Your task to perform on an android device: Go to Maps Image 0: 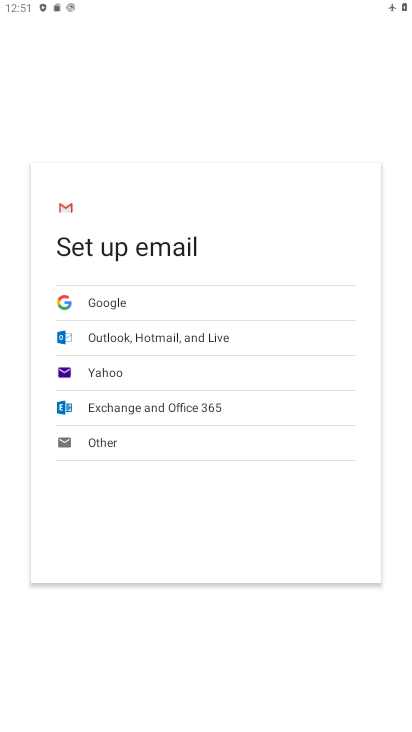
Step 0: press home button
Your task to perform on an android device: Go to Maps Image 1: 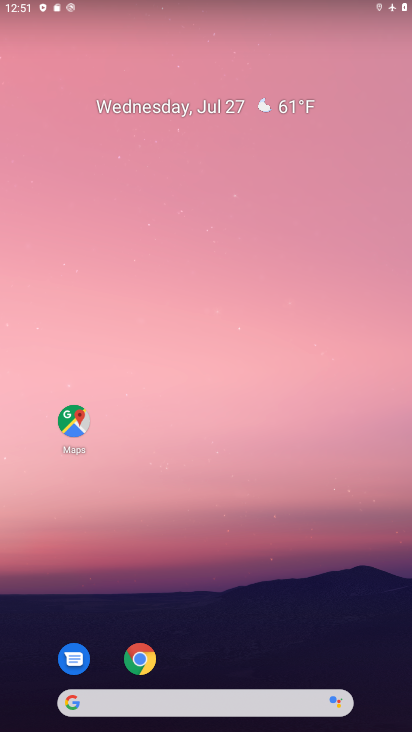
Step 1: click (74, 409)
Your task to perform on an android device: Go to Maps Image 2: 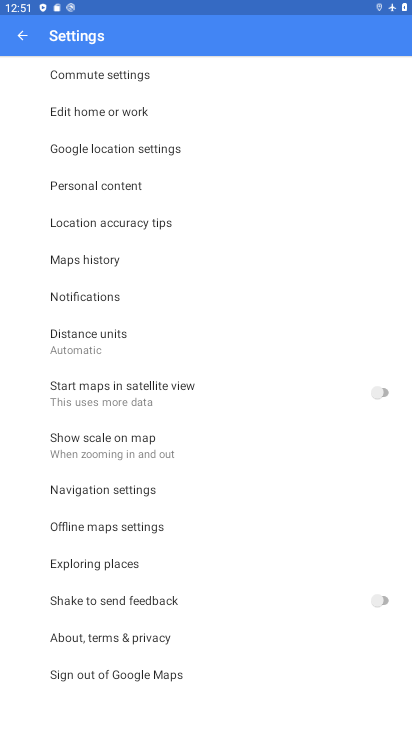
Step 2: click (31, 31)
Your task to perform on an android device: Go to Maps Image 3: 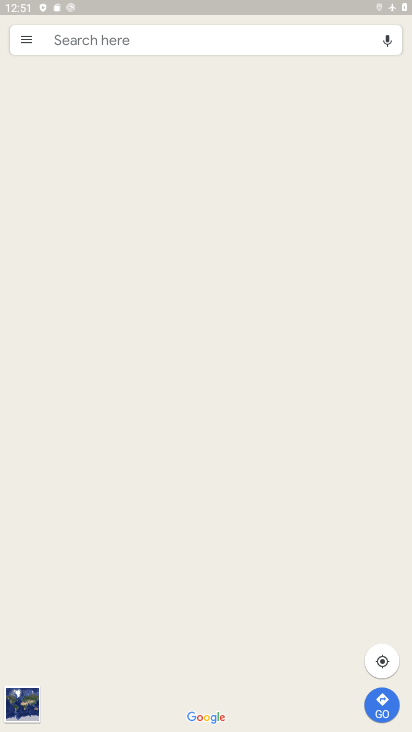
Step 3: task complete